Your task to perform on an android device: What is the news today? Image 0: 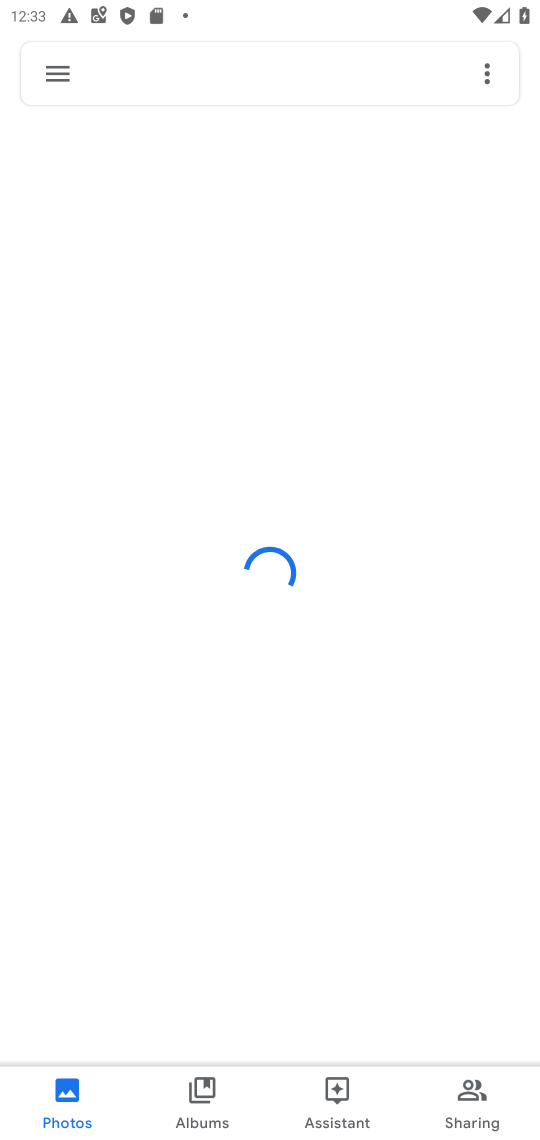
Step 0: press home button
Your task to perform on an android device: What is the news today? Image 1: 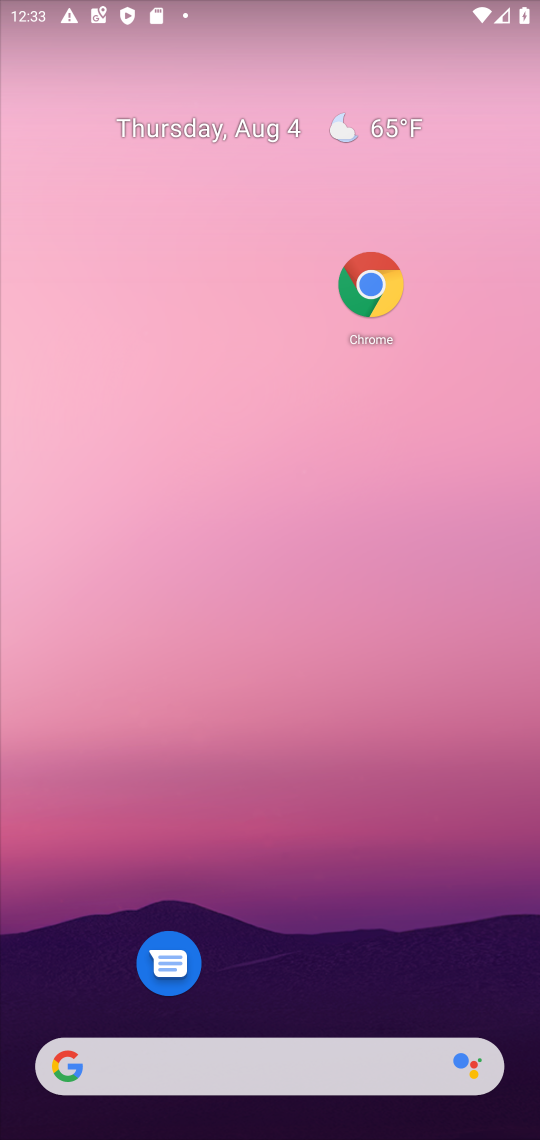
Step 1: drag from (321, 990) to (313, 155)
Your task to perform on an android device: What is the news today? Image 2: 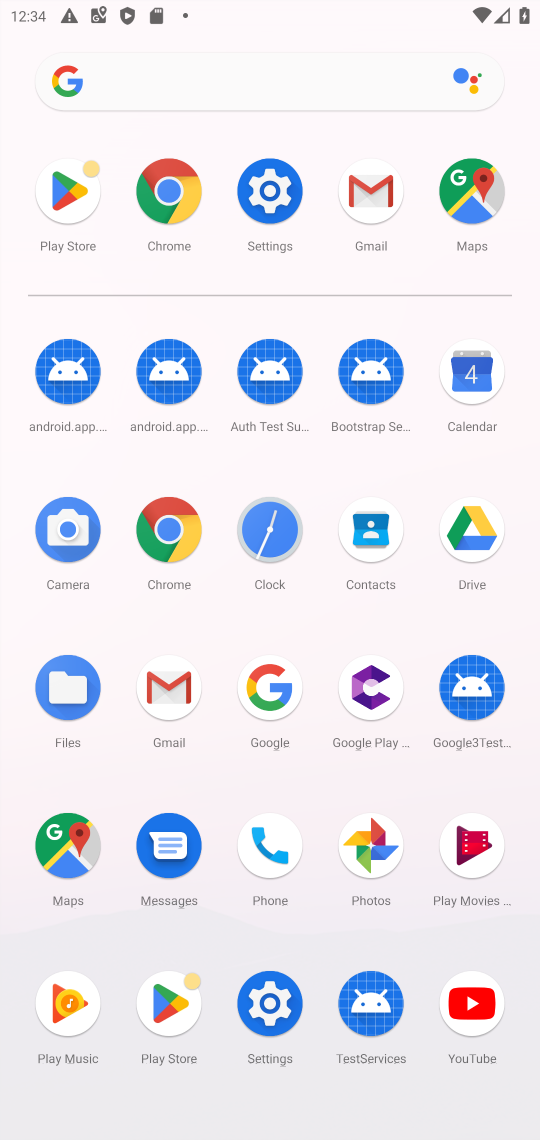
Step 2: click (151, 187)
Your task to perform on an android device: What is the news today? Image 3: 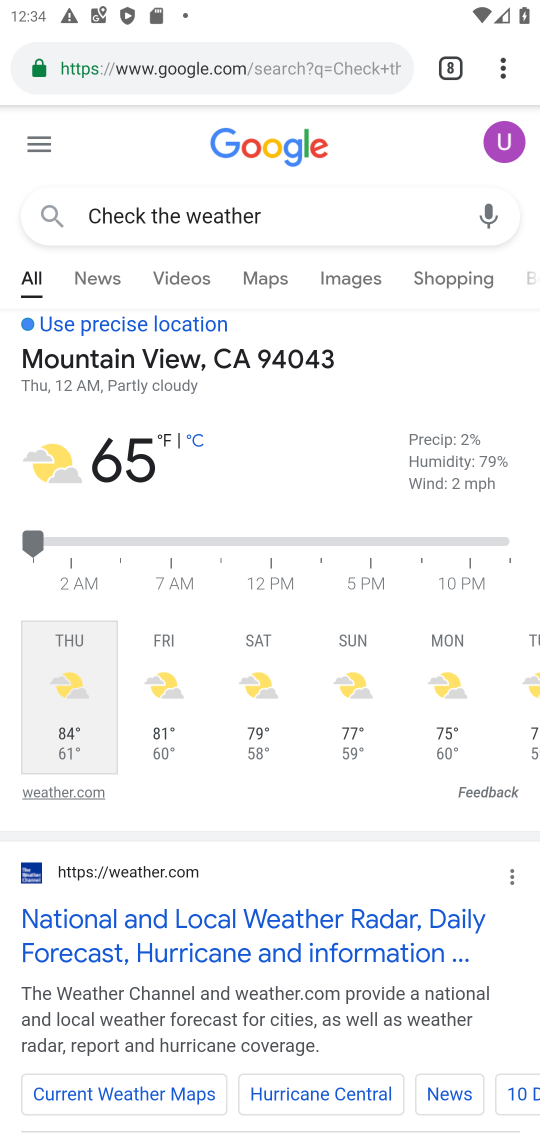
Step 3: click (505, 62)
Your task to perform on an android device: What is the news today? Image 4: 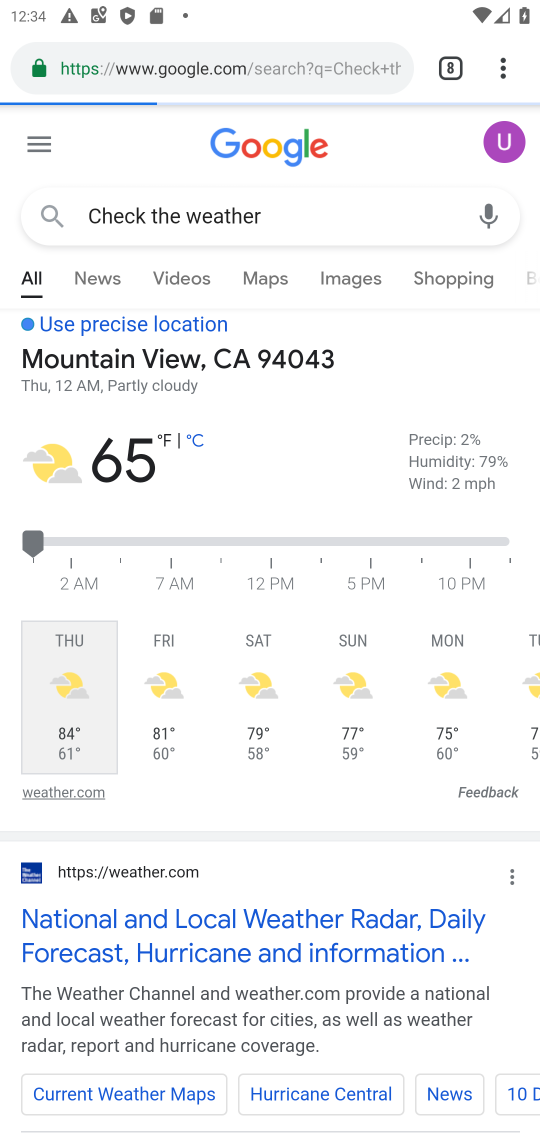
Step 4: click (505, 70)
Your task to perform on an android device: What is the news today? Image 5: 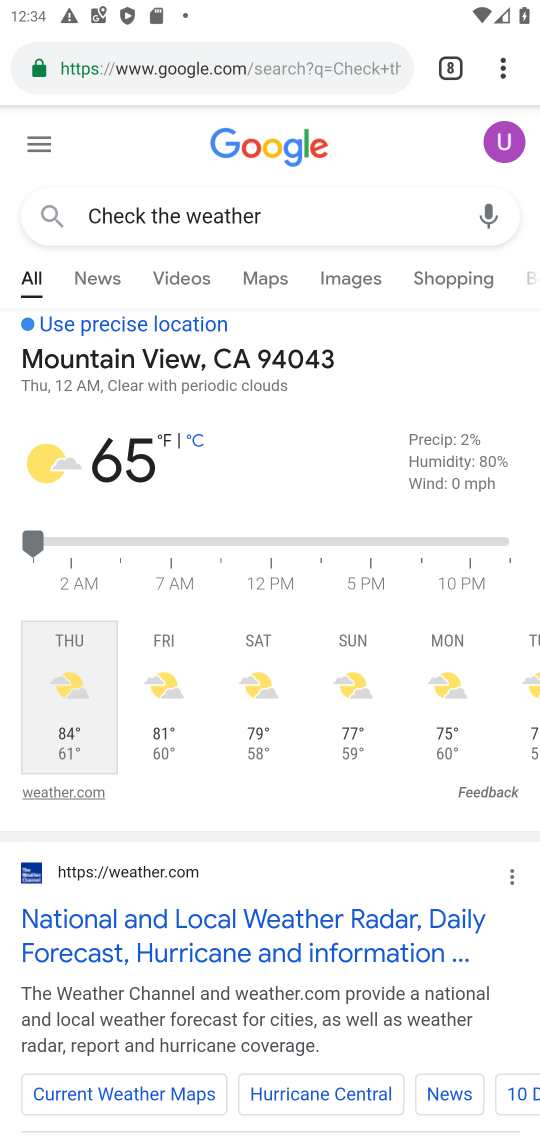
Step 5: click (505, 70)
Your task to perform on an android device: What is the news today? Image 6: 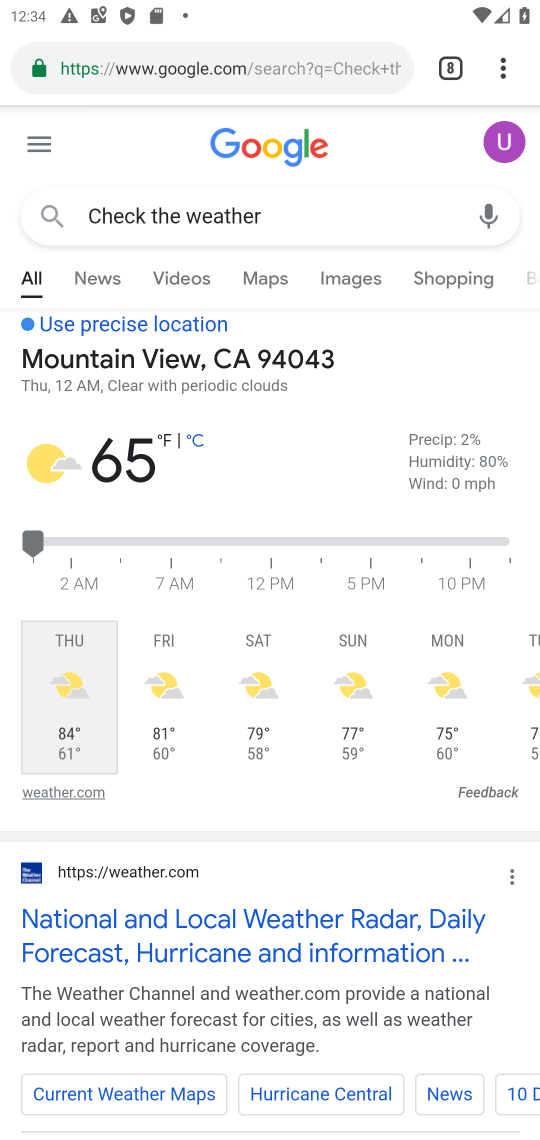
Step 6: click (508, 77)
Your task to perform on an android device: What is the news today? Image 7: 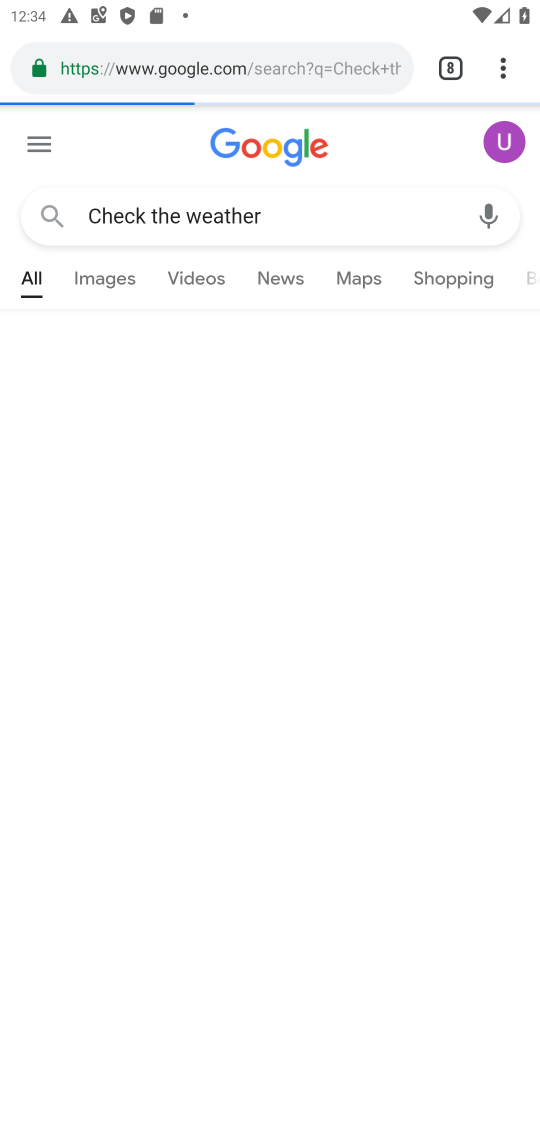
Step 7: click (508, 77)
Your task to perform on an android device: What is the news today? Image 8: 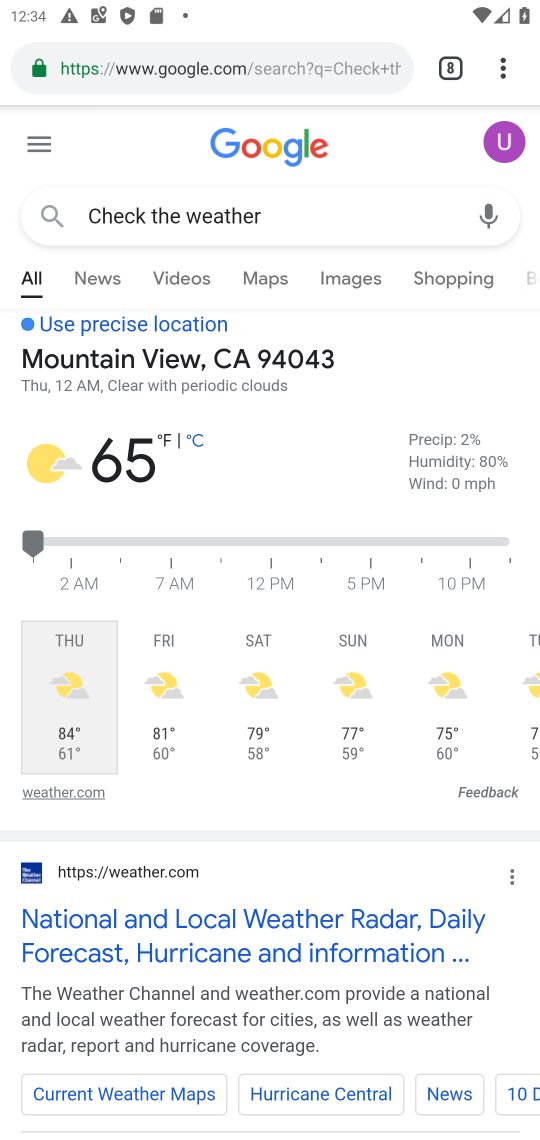
Step 8: click (531, 60)
Your task to perform on an android device: What is the news today? Image 9: 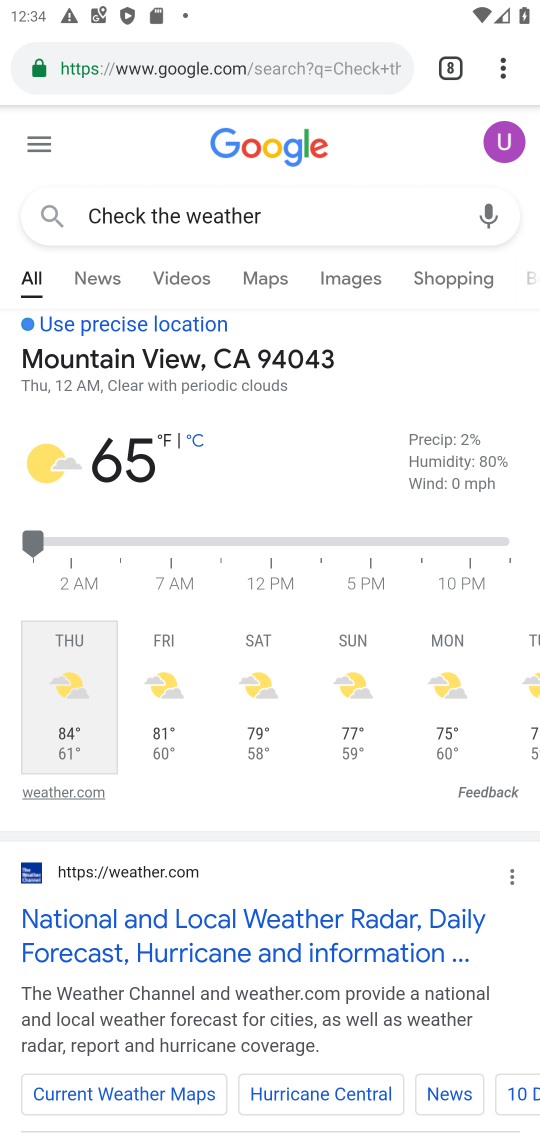
Step 9: click (472, 64)
Your task to perform on an android device: What is the news today? Image 10: 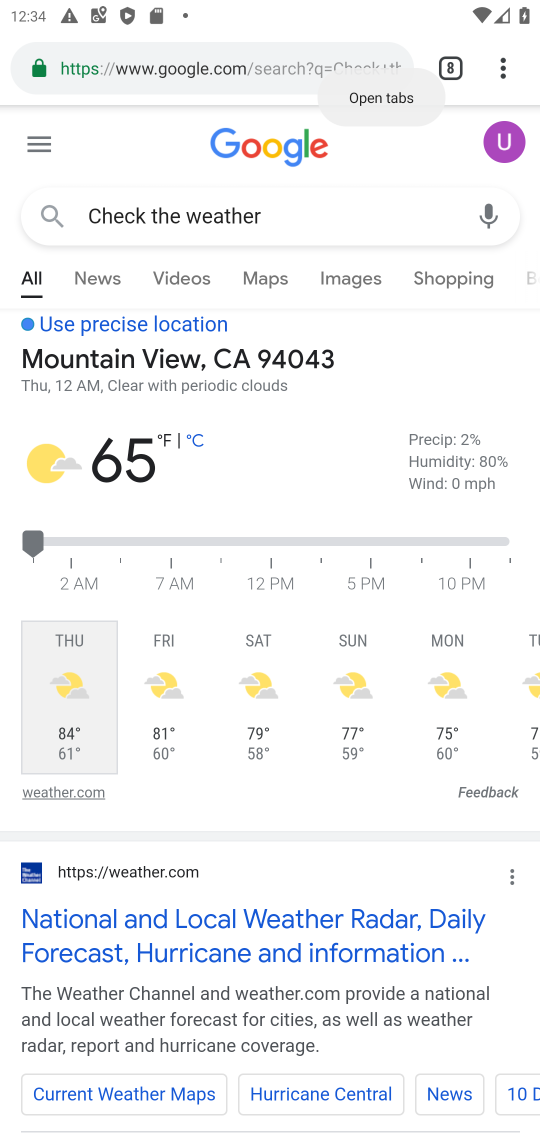
Step 10: click (450, 64)
Your task to perform on an android device: What is the news today? Image 11: 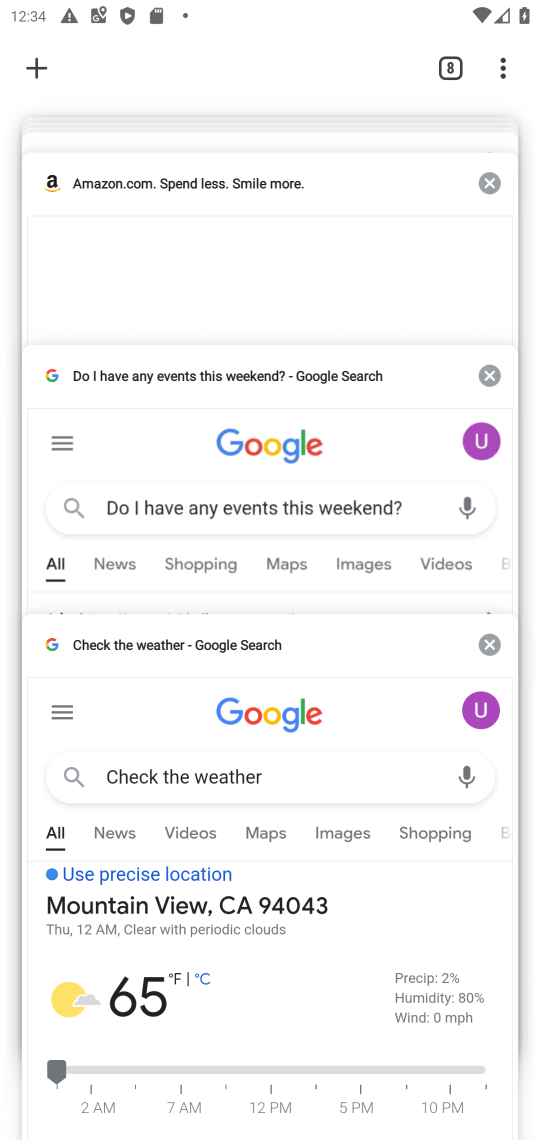
Step 11: click (13, 69)
Your task to perform on an android device: What is the news today? Image 12: 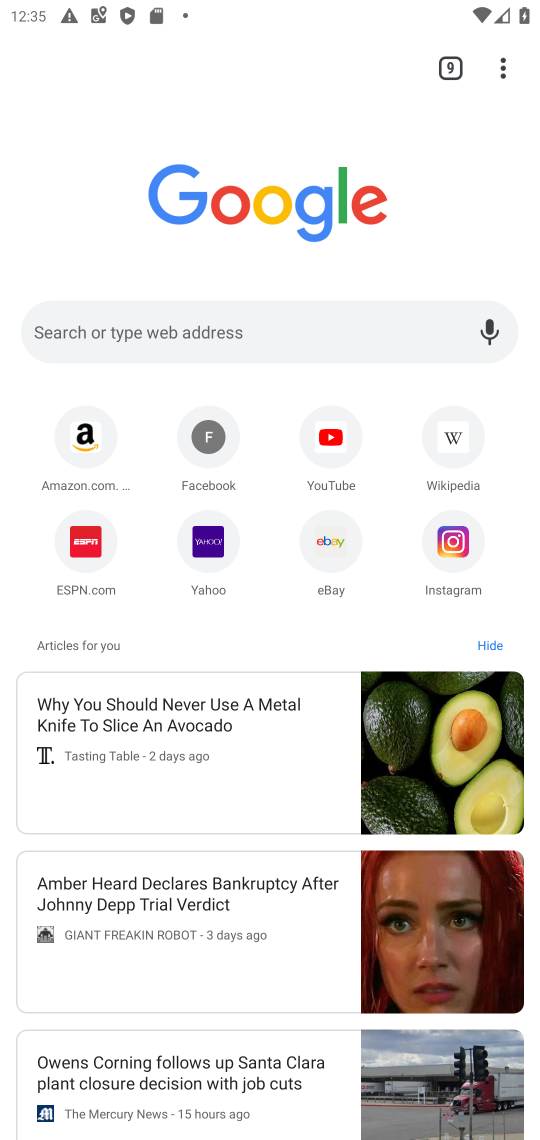
Step 12: click (248, 310)
Your task to perform on an android device: What is the news today? Image 13: 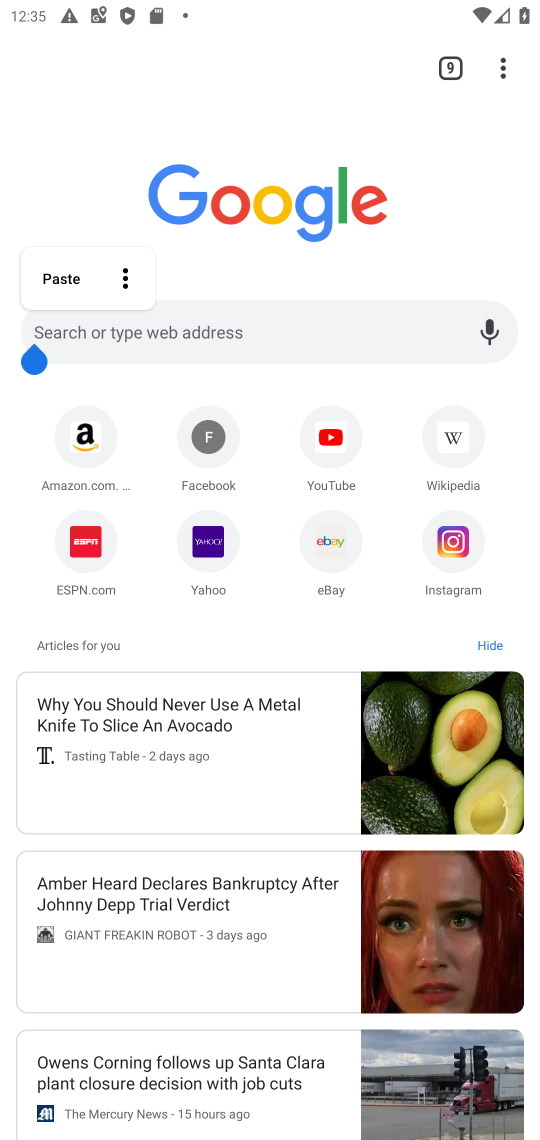
Step 13: type "What is the news today? "
Your task to perform on an android device: What is the news today? Image 14: 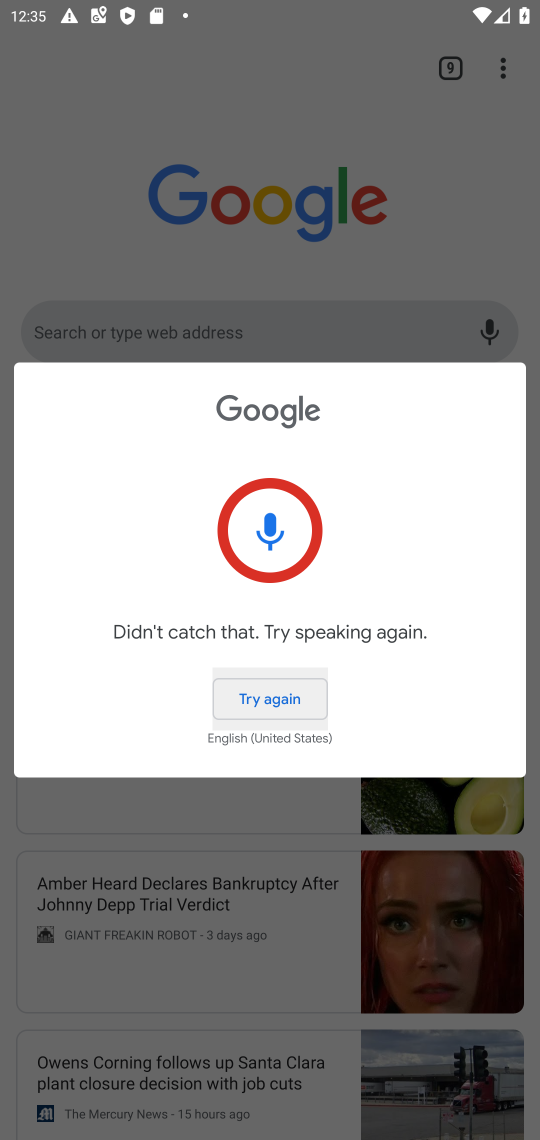
Step 14: click (466, 234)
Your task to perform on an android device: What is the news today? Image 15: 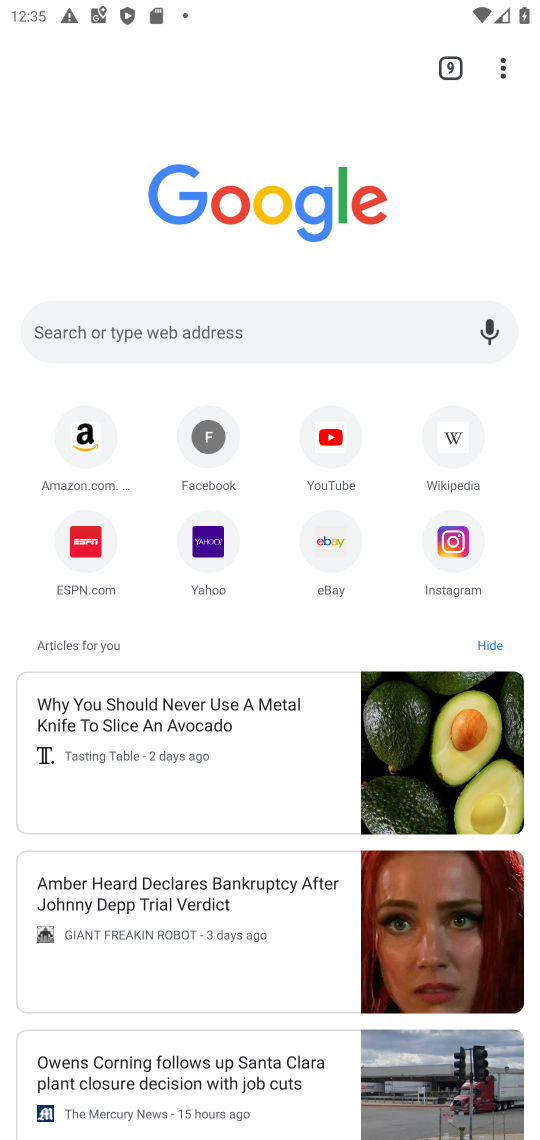
Step 15: click (237, 333)
Your task to perform on an android device: What is the news today? Image 16: 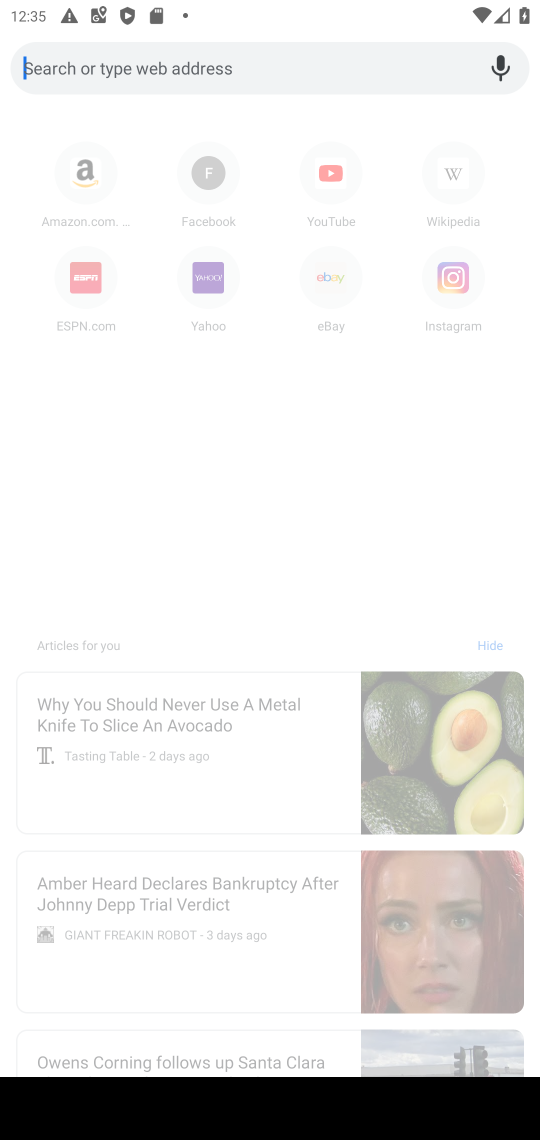
Step 16: type "What is the news today? "
Your task to perform on an android device: What is the news today? Image 17: 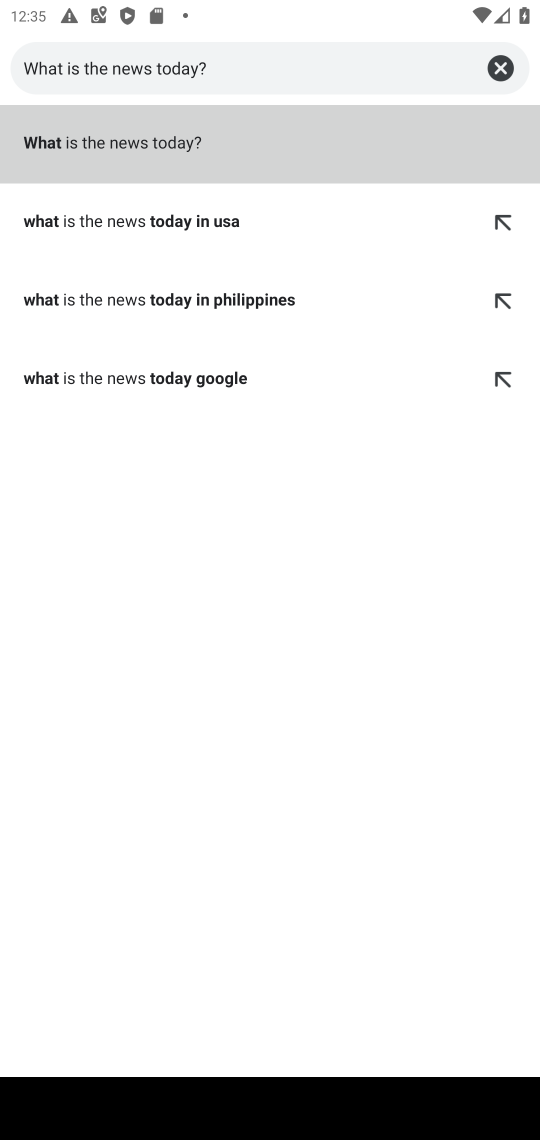
Step 17: click (143, 137)
Your task to perform on an android device: What is the news today? Image 18: 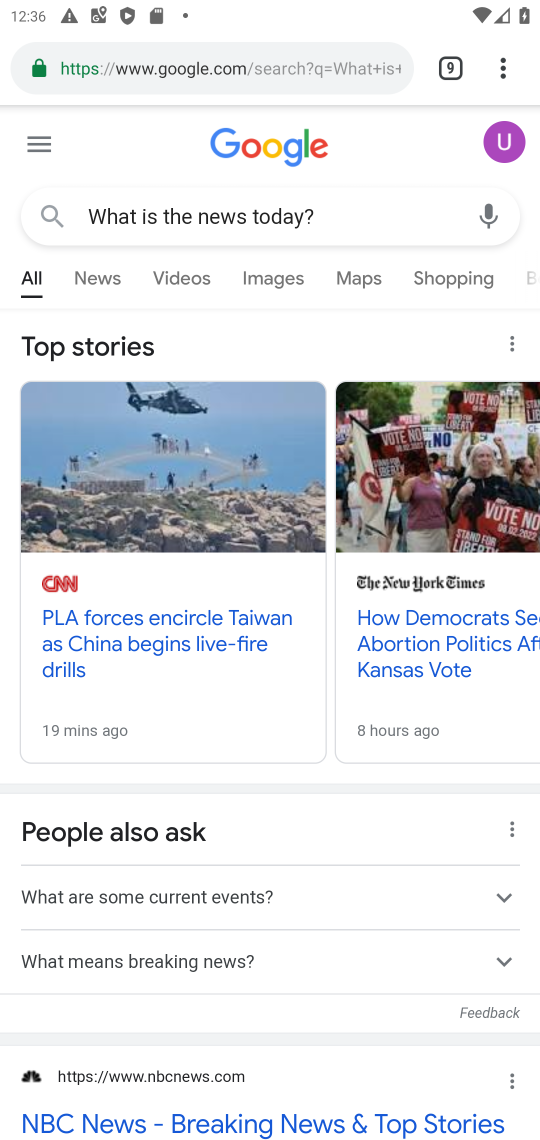
Step 18: task complete